Your task to perform on an android device: Show me popular games on the Play Store Image 0: 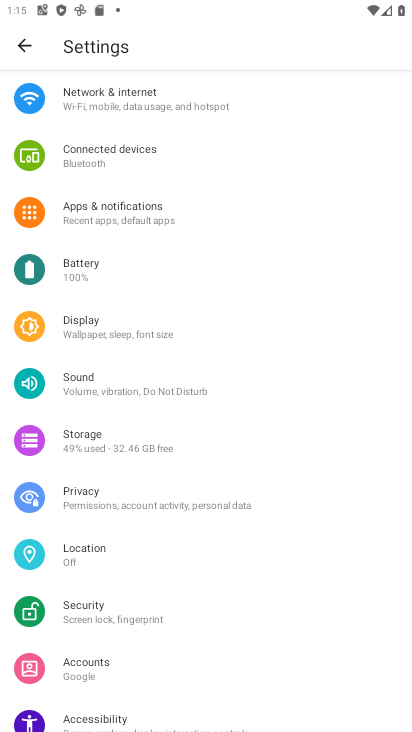
Step 0: press home button
Your task to perform on an android device: Show me popular games on the Play Store Image 1: 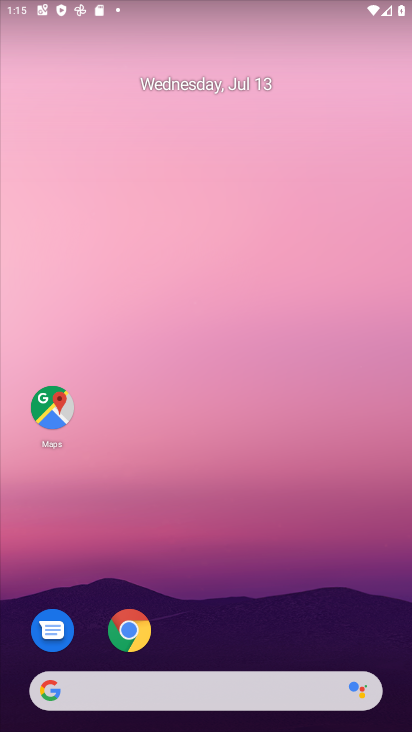
Step 1: drag from (402, 665) to (153, 9)
Your task to perform on an android device: Show me popular games on the Play Store Image 2: 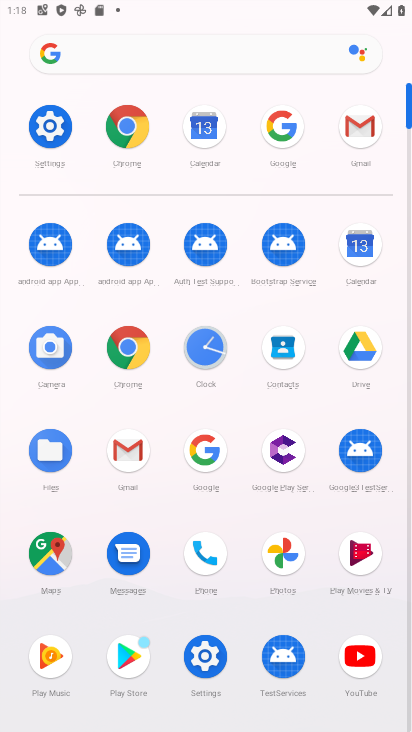
Step 2: click (120, 662)
Your task to perform on an android device: Show me popular games on the Play Store Image 3: 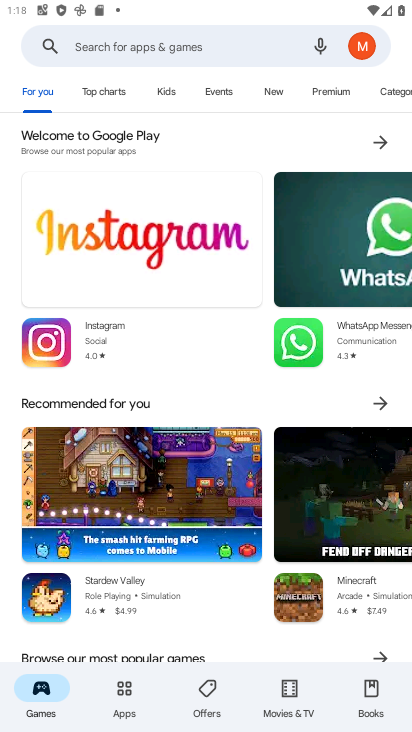
Step 3: task complete